Your task to perform on an android device: open chrome privacy settings Image 0: 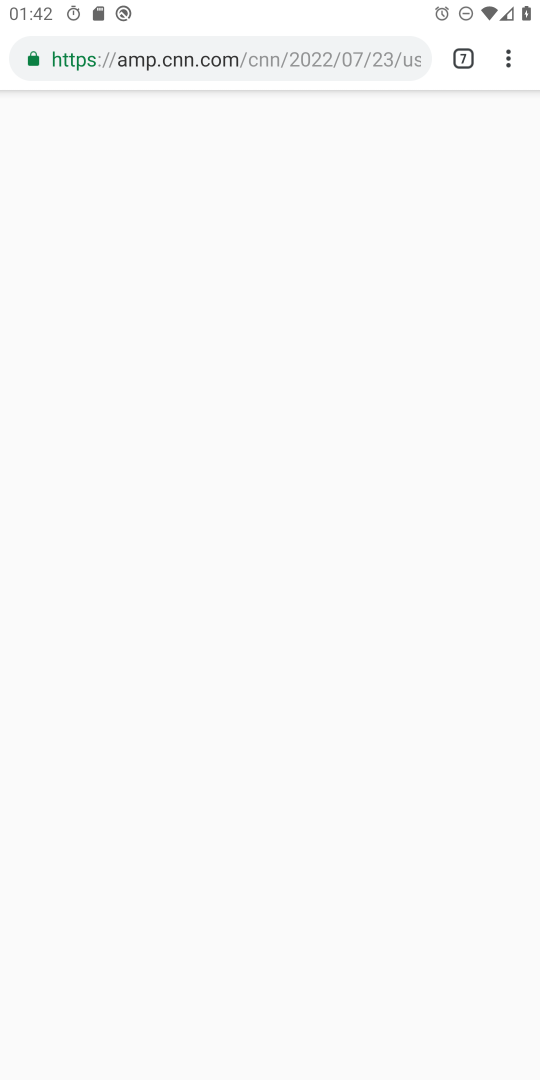
Step 0: press home button
Your task to perform on an android device: open chrome privacy settings Image 1: 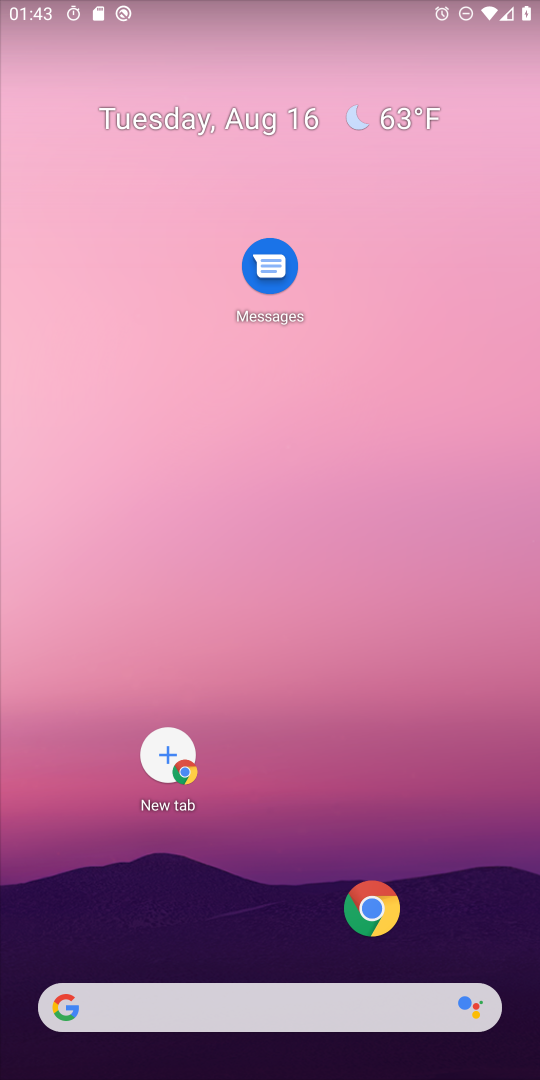
Step 1: click (363, 905)
Your task to perform on an android device: open chrome privacy settings Image 2: 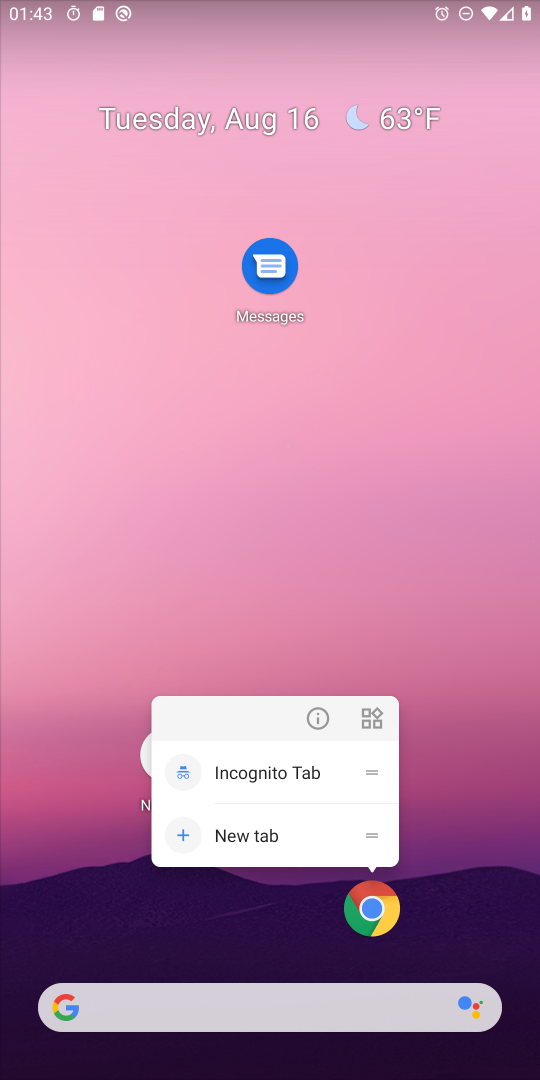
Step 2: click (375, 904)
Your task to perform on an android device: open chrome privacy settings Image 3: 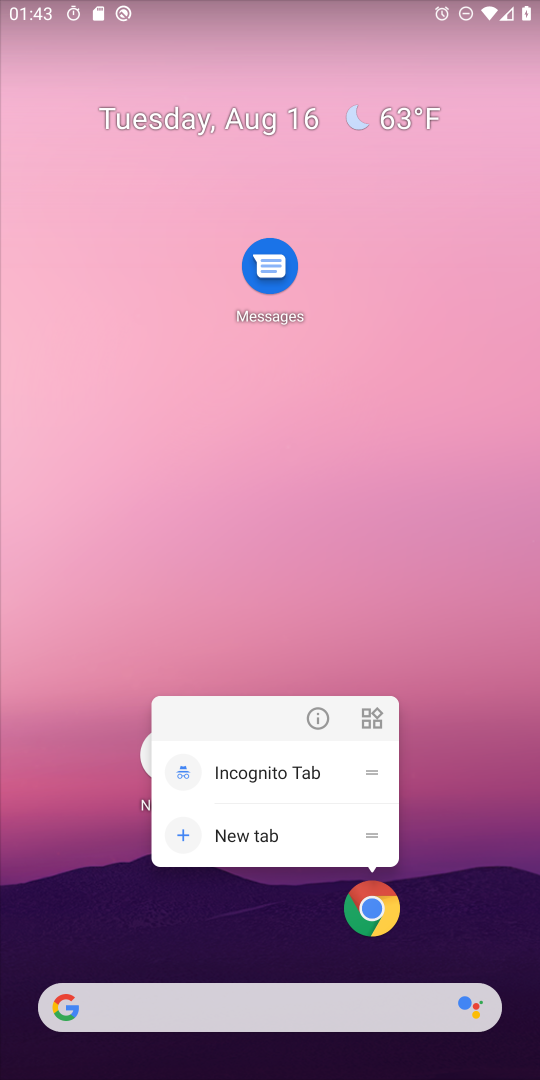
Step 3: click (375, 904)
Your task to perform on an android device: open chrome privacy settings Image 4: 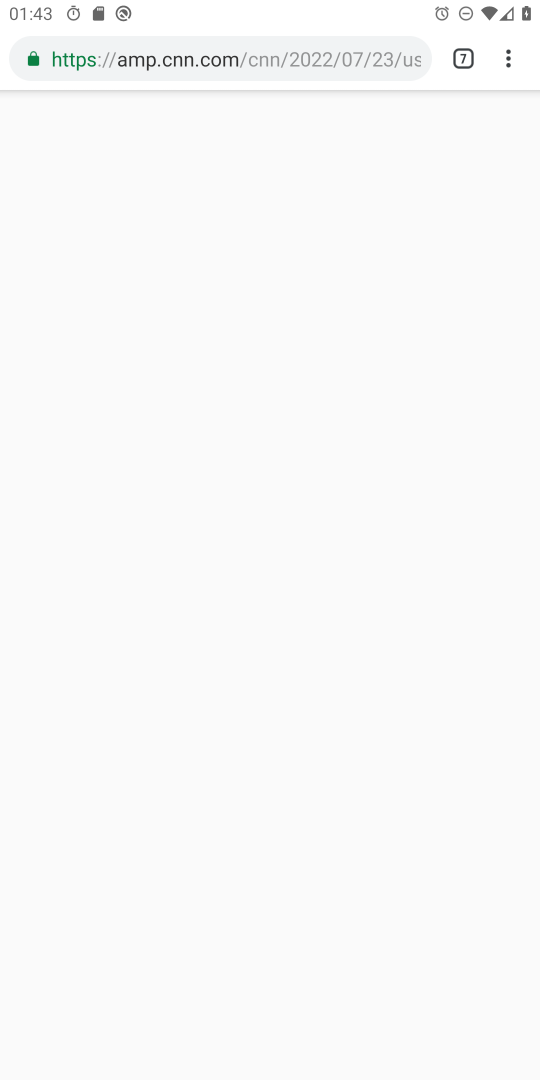
Step 4: click (512, 54)
Your task to perform on an android device: open chrome privacy settings Image 5: 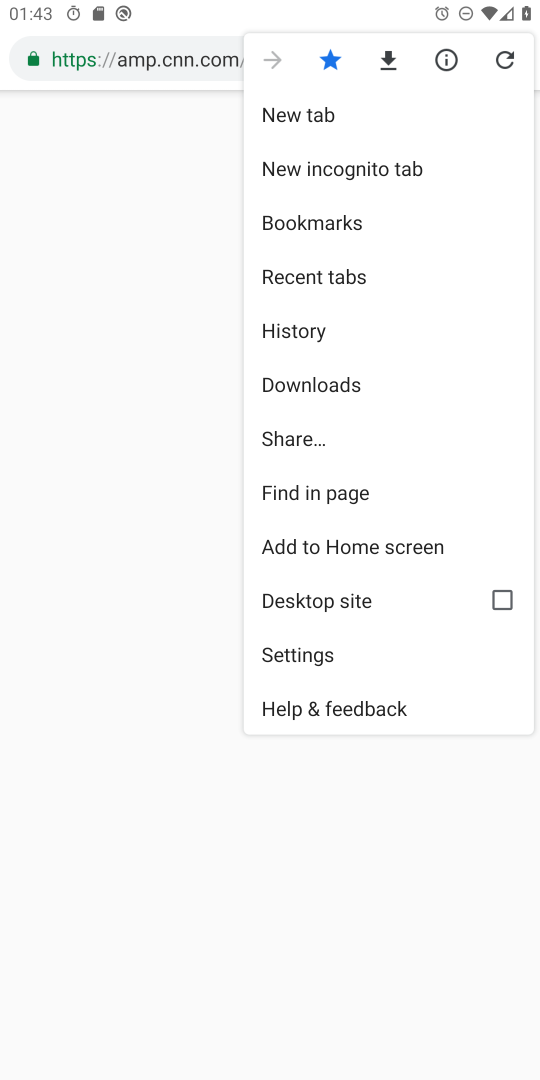
Step 5: click (318, 660)
Your task to perform on an android device: open chrome privacy settings Image 6: 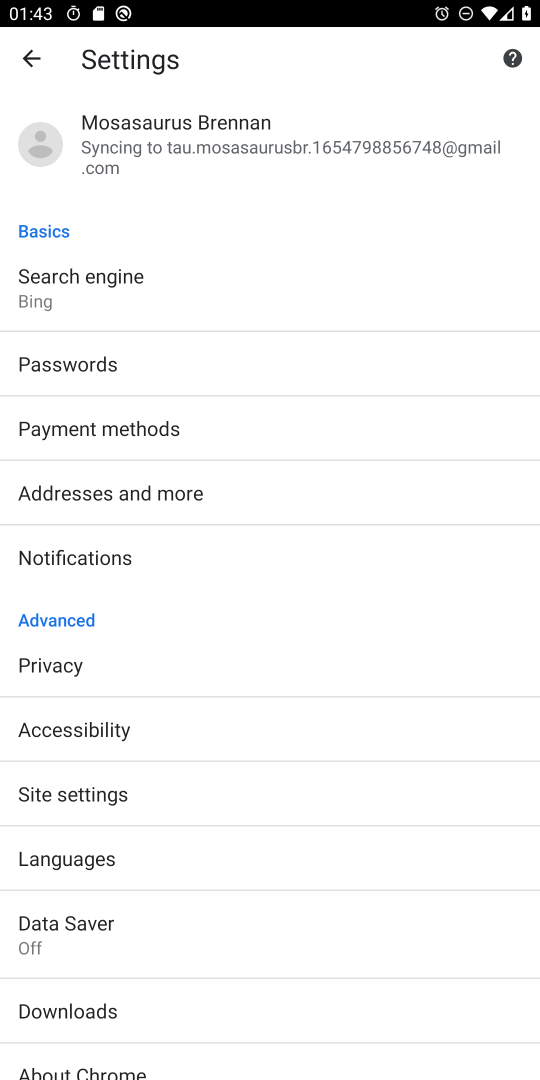
Step 6: click (135, 684)
Your task to perform on an android device: open chrome privacy settings Image 7: 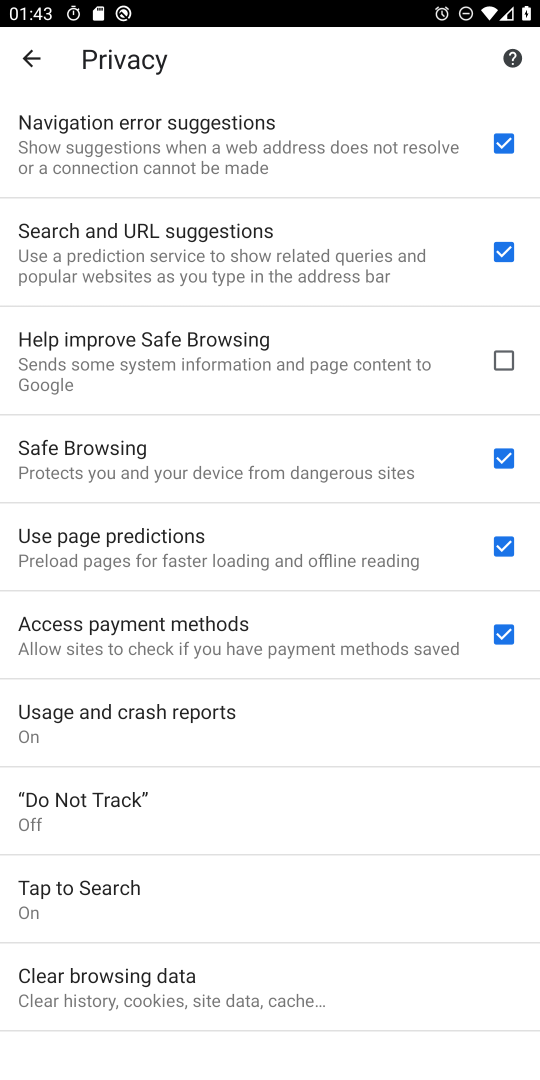
Step 7: task complete